Your task to perform on an android device: Open calendar and show me the first week of next month Image 0: 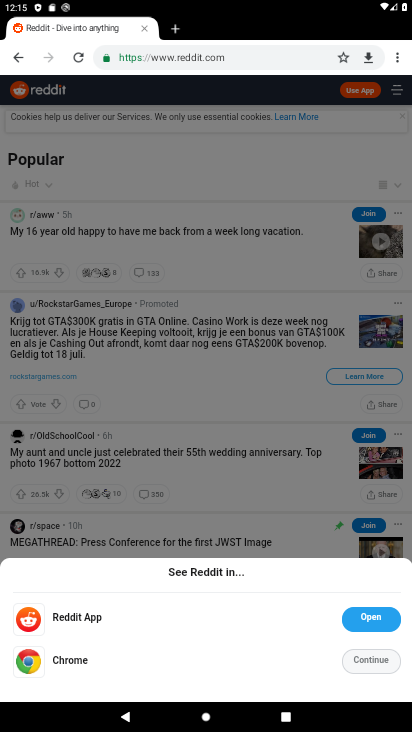
Step 0: press home button
Your task to perform on an android device: Open calendar and show me the first week of next month Image 1: 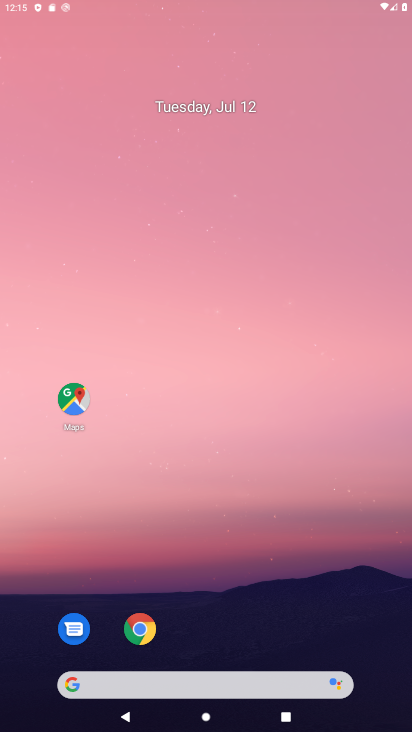
Step 1: drag from (241, 675) to (280, 54)
Your task to perform on an android device: Open calendar and show me the first week of next month Image 2: 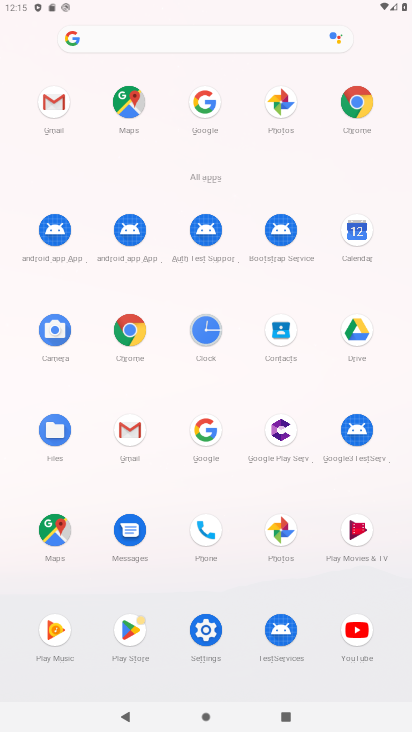
Step 2: click (353, 220)
Your task to perform on an android device: Open calendar and show me the first week of next month Image 3: 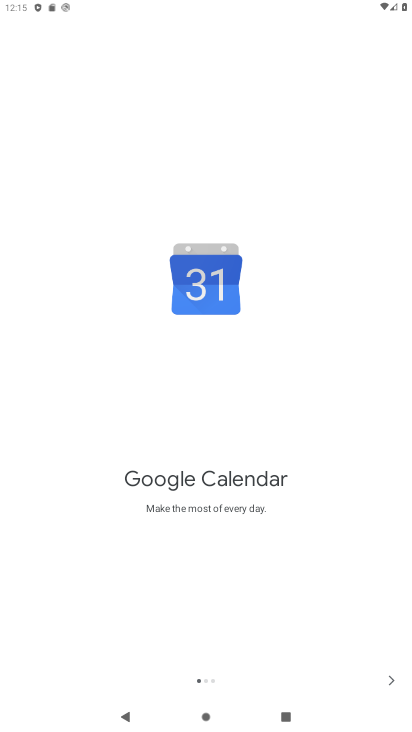
Step 3: click (399, 677)
Your task to perform on an android device: Open calendar and show me the first week of next month Image 4: 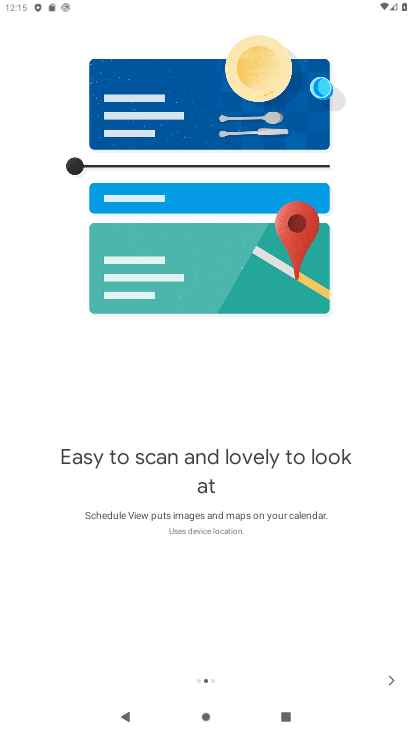
Step 4: click (397, 680)
Your task to perform on an android device: Open calendar and show me the first week of next month Image 5: 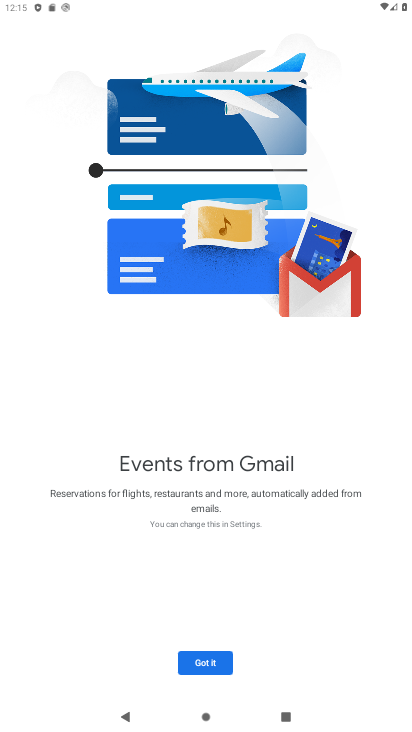
Step 5: click (217, 666)
Your task to perform on an android device: Open calendar and show me the first week of next month Image 6: 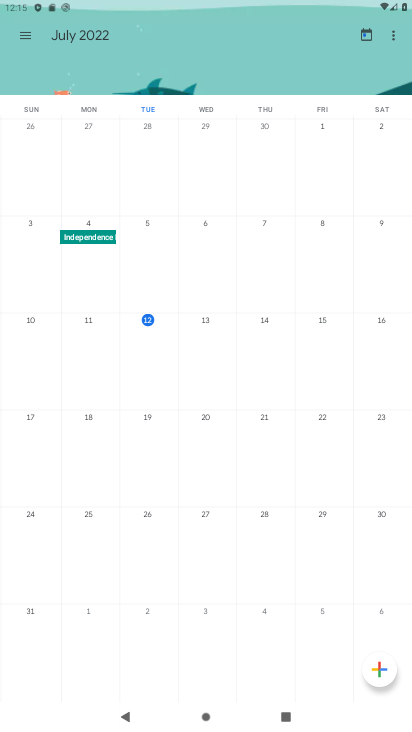
Step 6: drag from (305, 335) to (409, 354)
Your task to perform on an android device: Open calendar and show me the first week of next month Image 7: 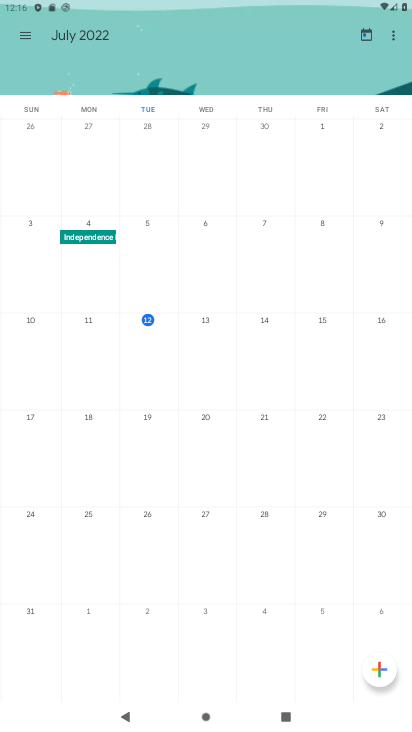
Step 7: drag from (368, 404) to (10, 446)
Your task to perform on an android device: Open calendar and show me the first week of next month Image 8: 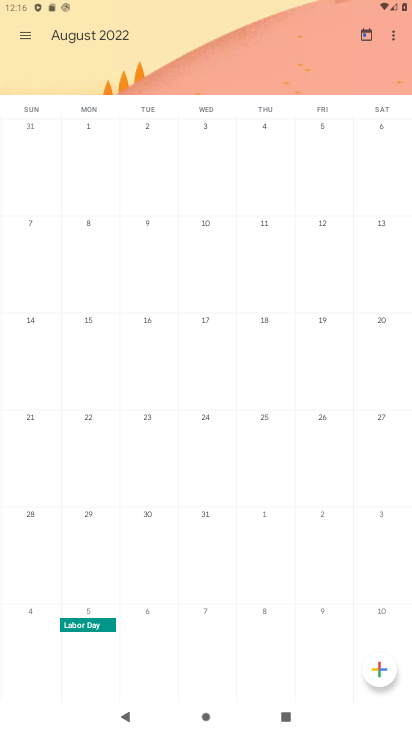
Step 8: click (262, 129)
Your task to perform on an android device: Open calendar and show me the first week of next month Image 9: 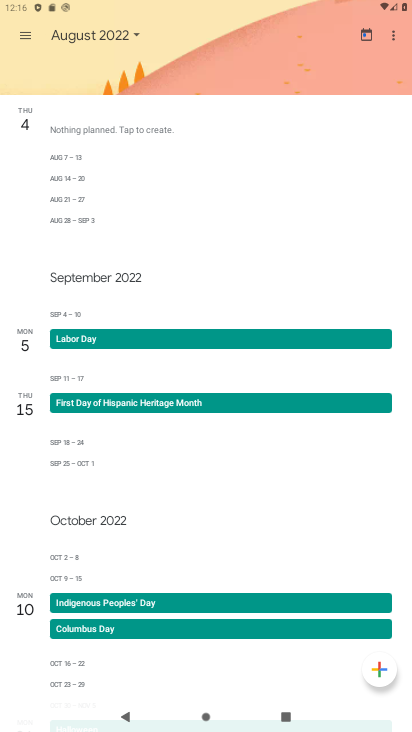
Step 9: click (25, 32)
Your task to perform on an android device: Open calendar and show me the first week of next month Image 10: 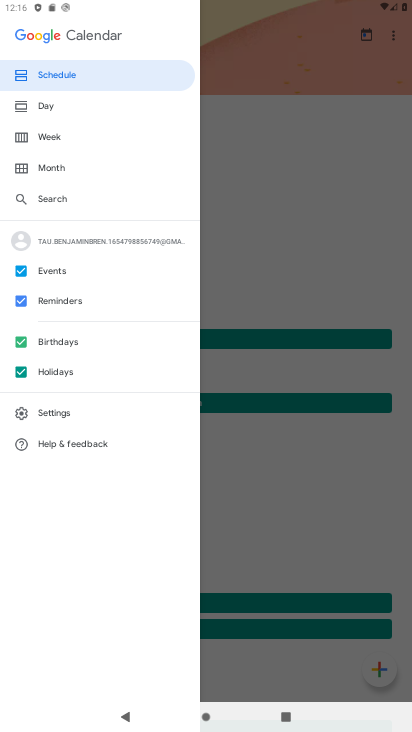
Step 10: click (46, 135)
Your task to perform on an android device: Open calendar and show me the first week of next month Image 11: 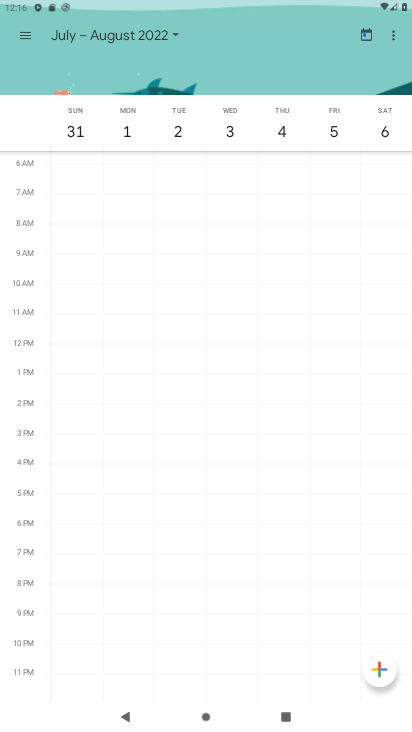
Step 11: task complete